Your task to perform on an android device: delete location history Image 0: 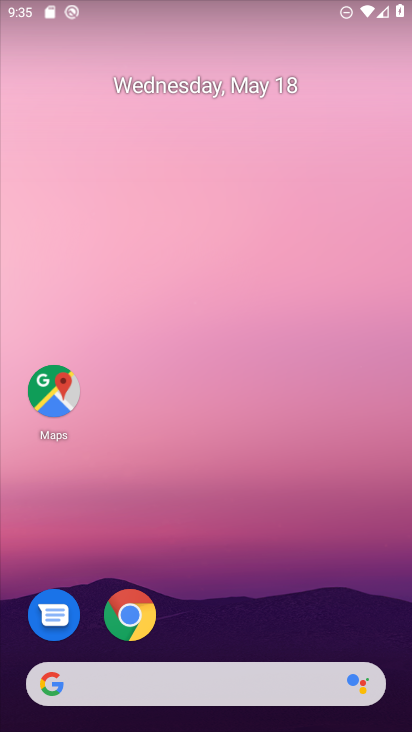
Step 0: drag from (237, 593) to (259, 83)
Your task to perform on an android device: delete location history Image 1: 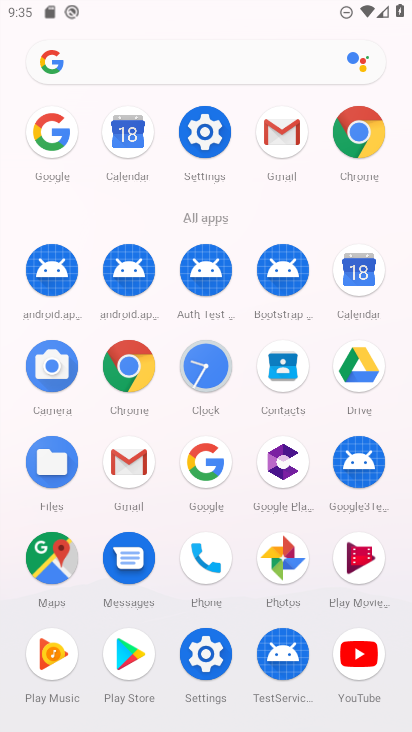
Step 1: click (209, 127)
Your task to perform on an android device: delete location history Image 2: 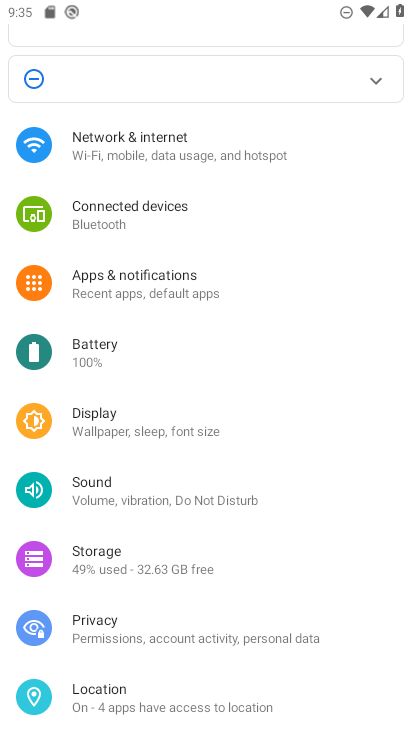
Step 2: click (99, 694)
Your task to perform on an android device: delete location history Image 3: 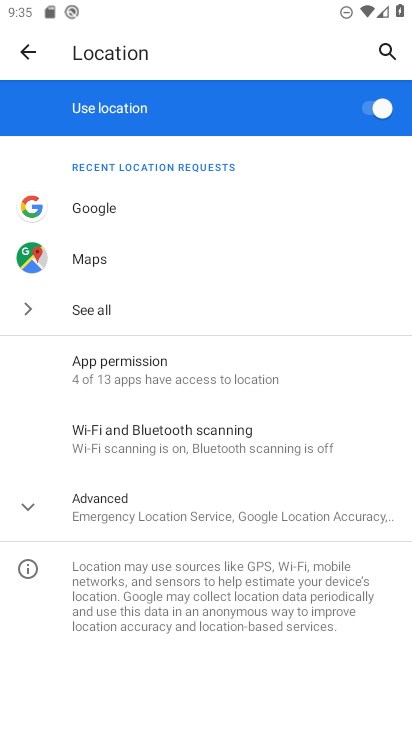
Step 3: click (104, 505)
Your task to perform on an android device: delete location history Image 4: 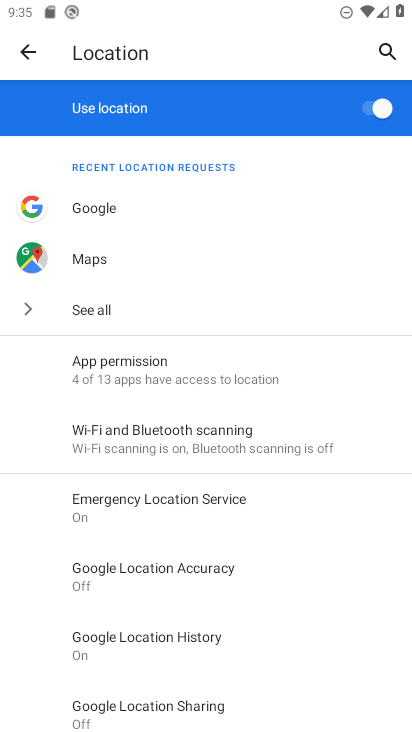
Step 4: drag from (187, 612) to (208, 479)
Your task to perform on an android device: delete location history Image 5: 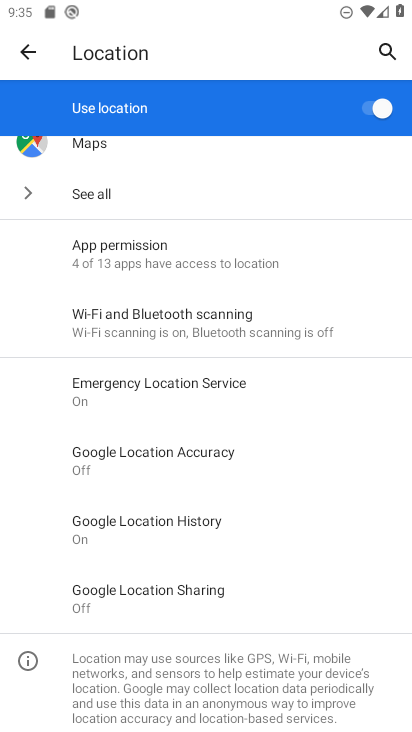
Step 5: click (153, 534)
Your task to perform on an android device: delete location history Image 6: 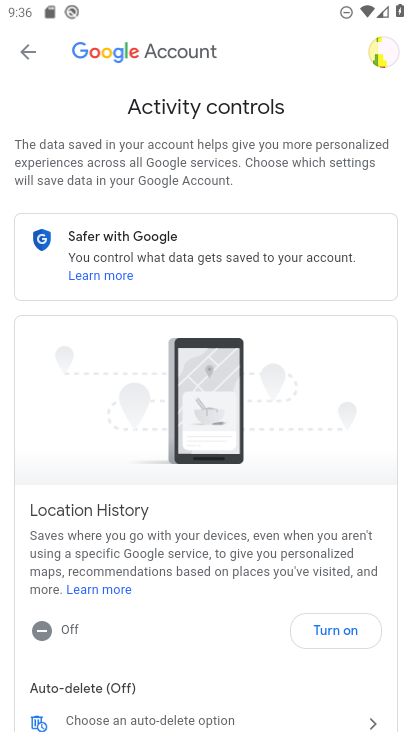
Step 6: drag from (137, 602) to (145, 401)
Your task to perform on an android device: delete location history Image 7: 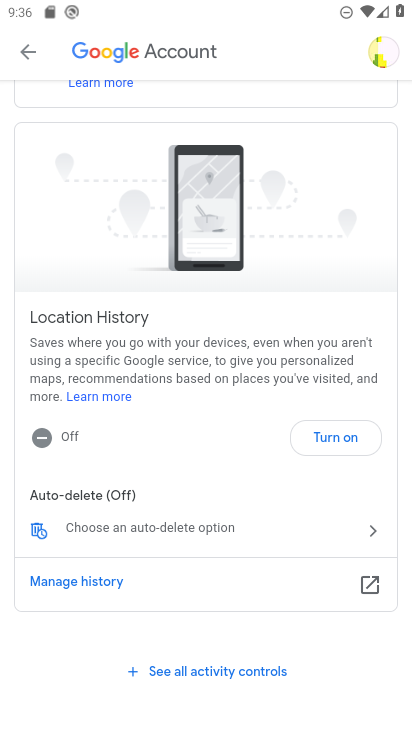
Step 7: click (36, 529)
Your task to perform on an android device: delete location history Image 8: 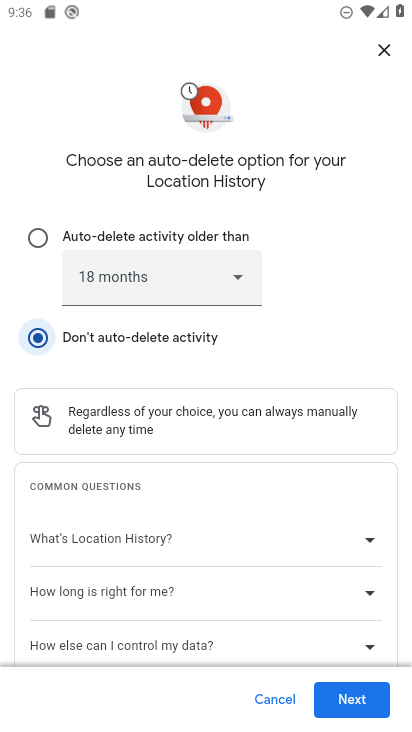
Step 8: drag from (152, 556) to (224, 323)
Your task to perform on an android device: delete location history Image 9: 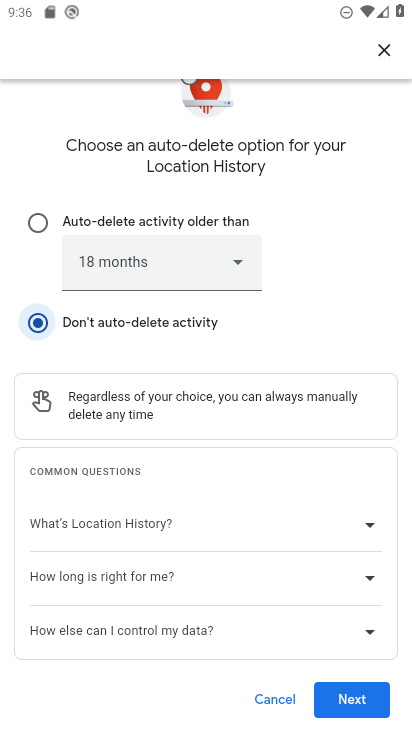
Step 9: click (338, 700)
Your task to perform on an android device: delete location history Image 10: 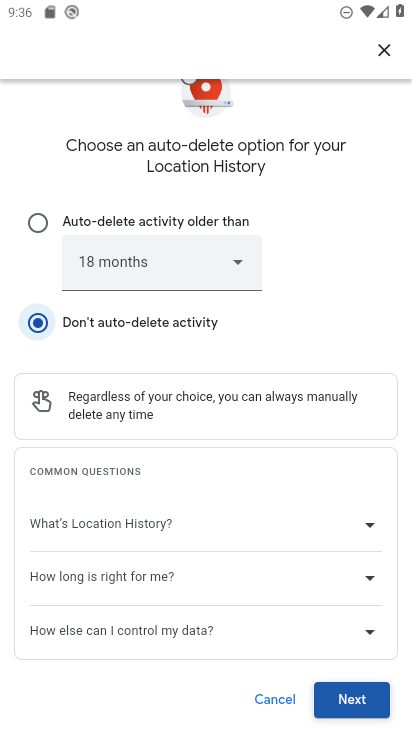
Step 10: click (347, 699)
Your task to perform on an android device: delete location history Image 11: 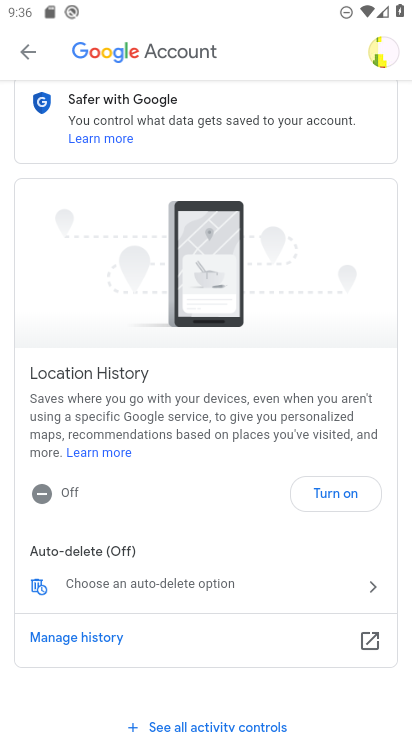
Step 11: task complete